Your task to perform on an android device: Go to location settings Image 0: 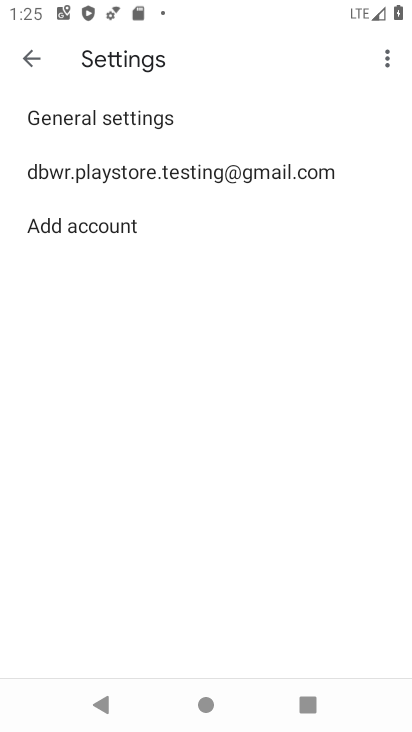
Step 0: press home button
Your task to perform on an android device: Go to location settings Image 1: 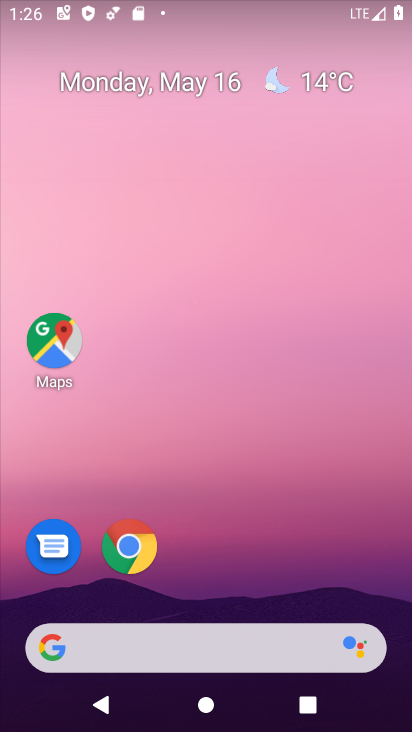
Step 1: drag from (258, 682) to (346, 271)
Your task to perform on an android device: Go to location settings Image 2: 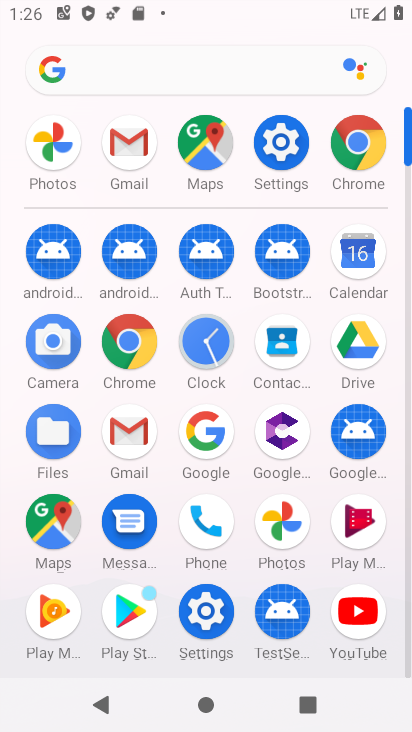
Step 2: click (280, 163)
Your task to perform on an android device: Go to location settings Image 3: 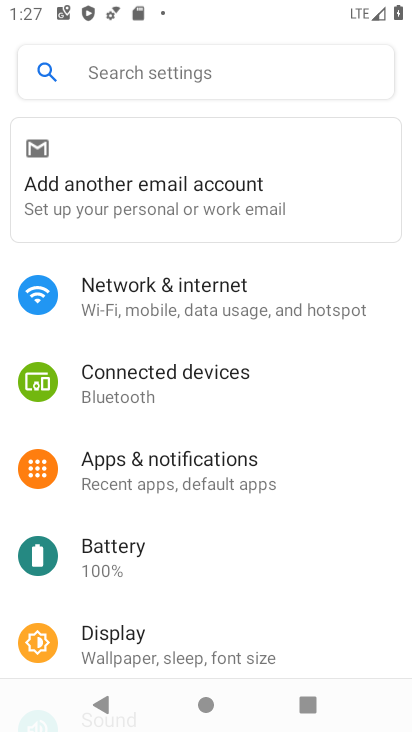
Step 3: click (207, 83)
Your task to perform on an android device: Go to location settings Image 4: 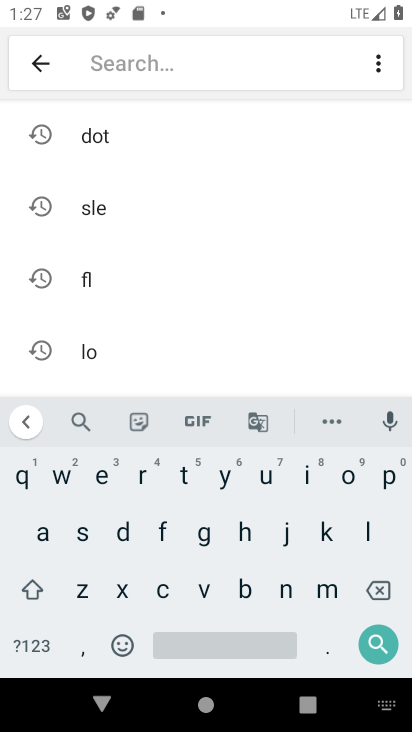
Step 4: click (93, 365)
Your task to perform on an android device: Go to location settings Image 5: 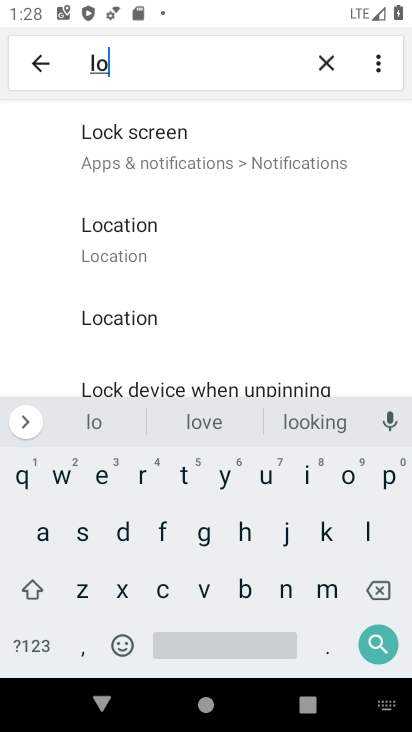
Step 5: click (135, 243)
Your task to perform on an android device: Go to location settings Image 6: 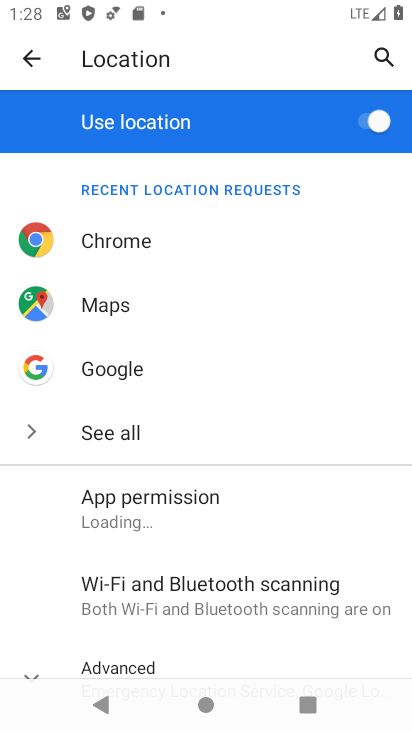
Step 6: task complete